Your task to perform on an android device: Open Google Chrome Image 0: 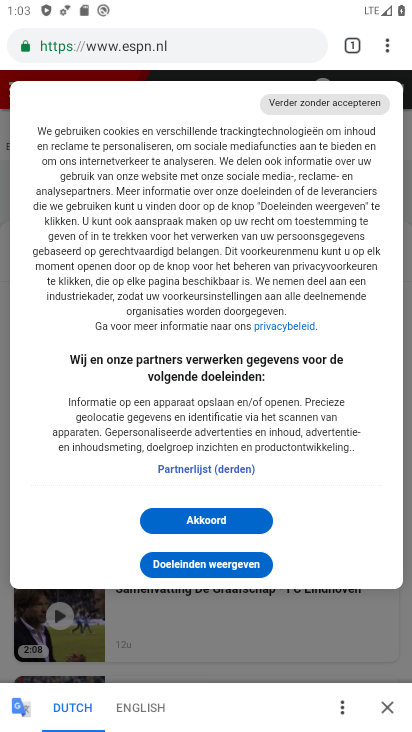
Step 0: task complete